Your task to perform on an android device: Show me recent news Image 0: 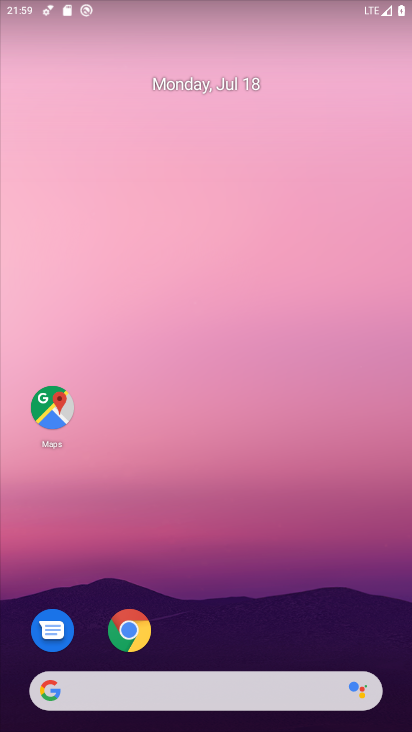
Step 0: drag from (238, 648) to (235, 234)
Your task to perform on an android device: Show me recent news Image 1: 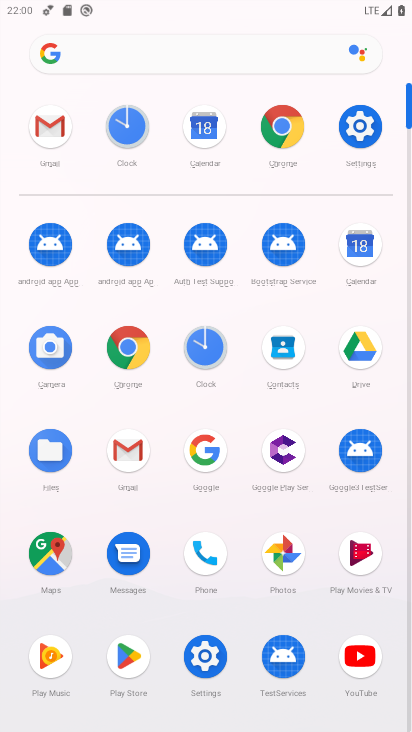
Step 1: click (278, 136)
Your task to perform on an android device: Show me recent news Image 2: 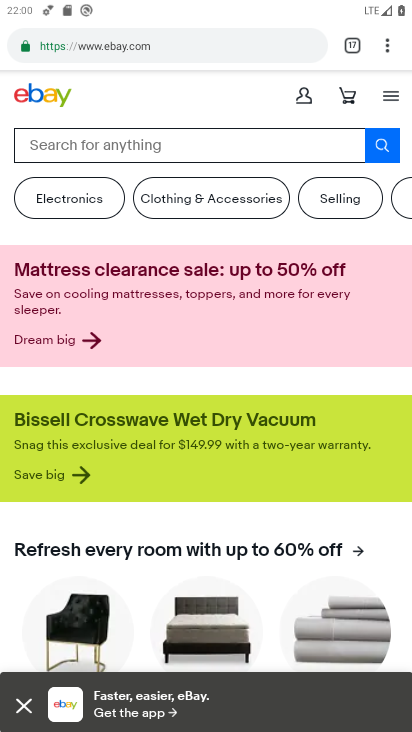
Step 2: click (391, 45)
Your task to perform on an android device: Show me recent news Image 3: 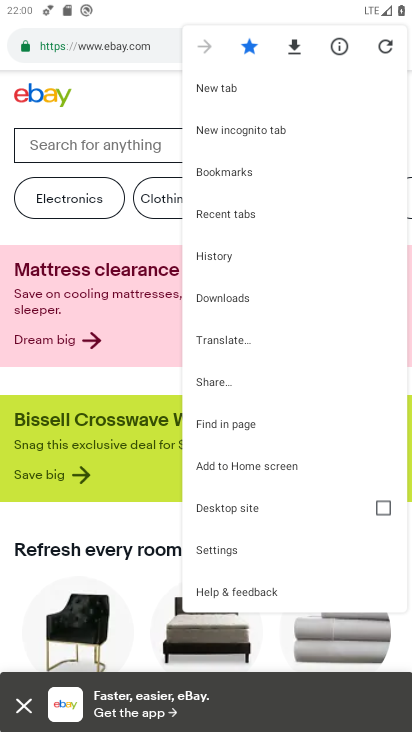
Step 3: click (206, 102)
Your task to perform on an android device: Show me recent news Image 4: 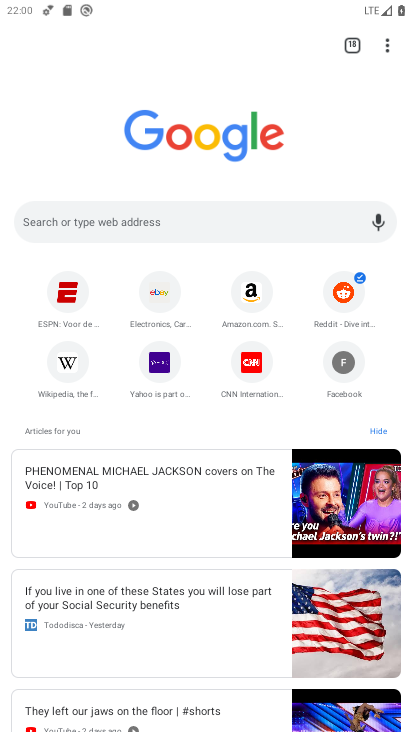
Step 4: click (235, 203)
Your task to perform on an android device: Show me recent news Image 5: 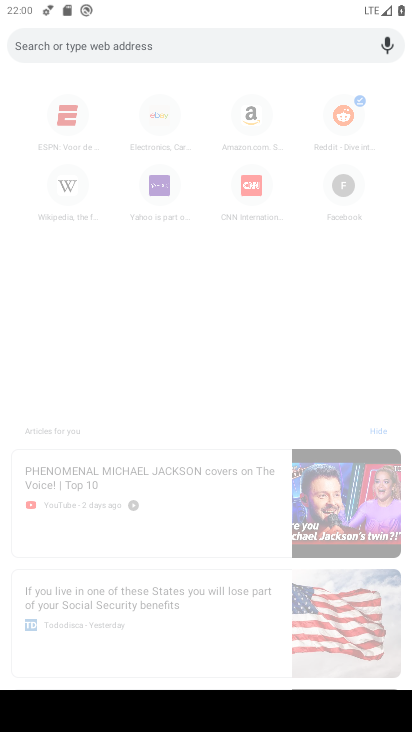
Step 5: type "Show me recent news  "
Your task to perform on an android device: Show me recent news Image 6: 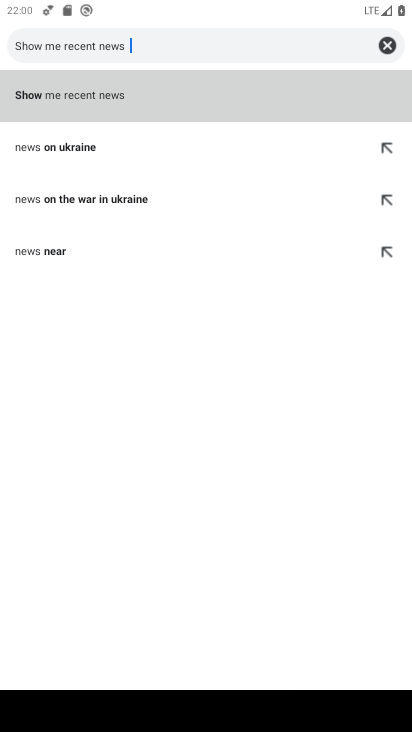
Step 6: click (296, 75)
Your task to perform on an android device: Show me recent news Image 7: 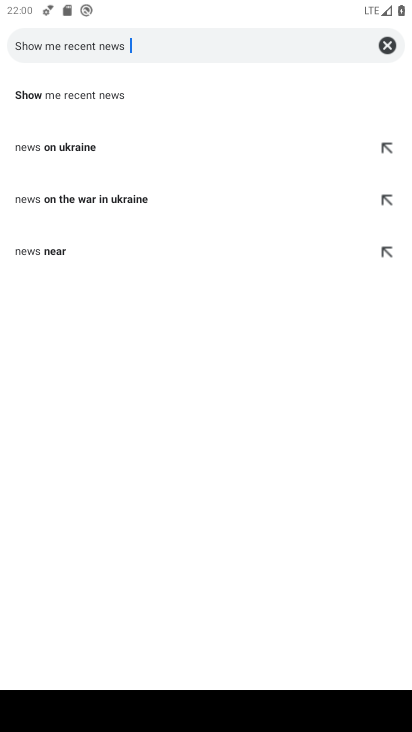
Step 7: click (147, 85)
Your task to perform on an android device: Show me recent news Image 8: 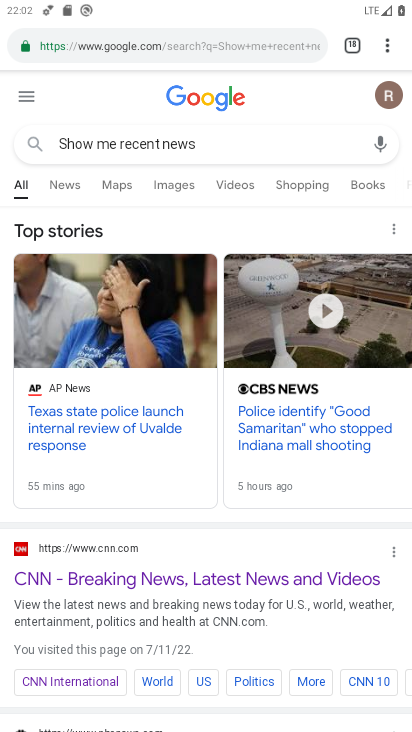
Step 8: task complete